Your task to perform on an android device: change the clock style Image 0: 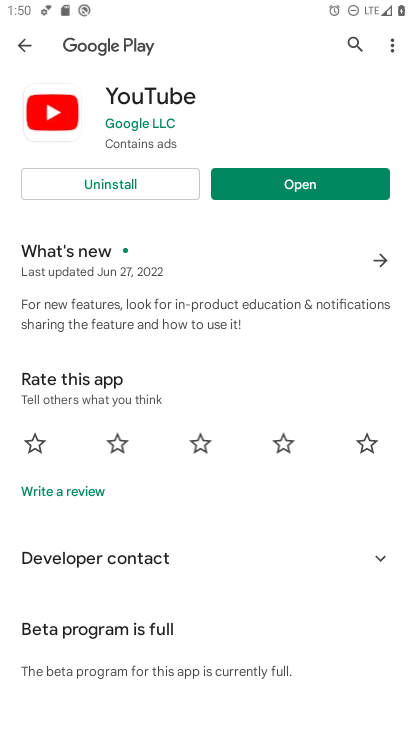
Step 0: press home button
Your task to perform on an android device: change the clock style Image 1: 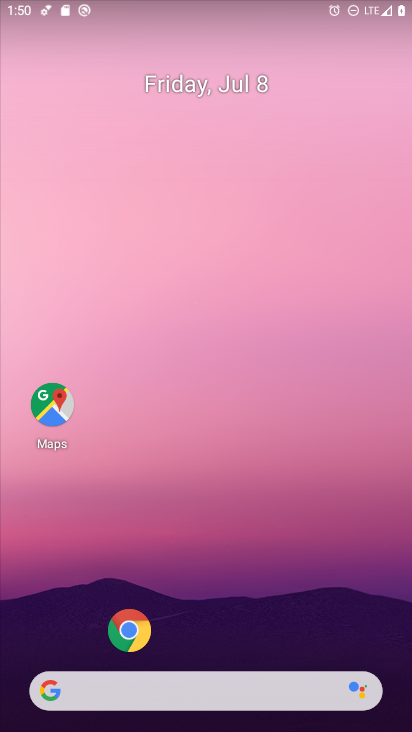
Step 1: drag from (262, 671) to (406, 434)
Your task to perform on an android device: change the clock style Image 2: 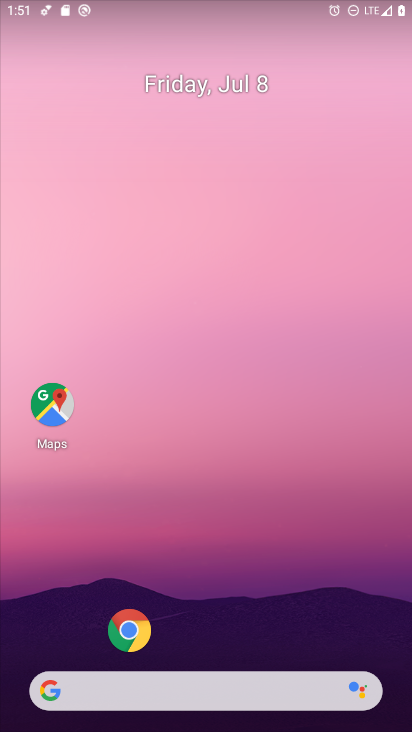
Step 2: drag from (268, 632) to (276, 104)
Your task to perform on an android device: change the clock style Image 3: 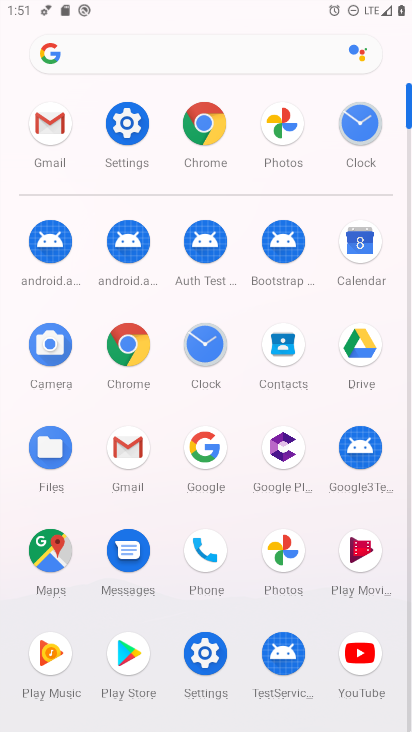
Step 3: click (216, 341)
Your task to perform on an android device: change the clock style Image 4: 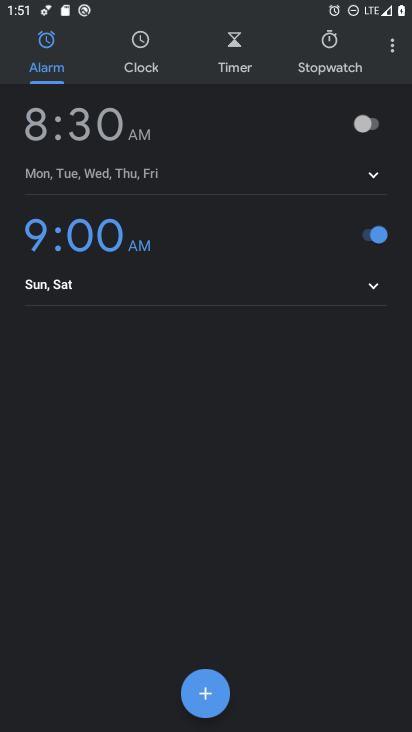
Step 4: click (391, 47)
Your task to perform on an android device: change the clock style Image 5: 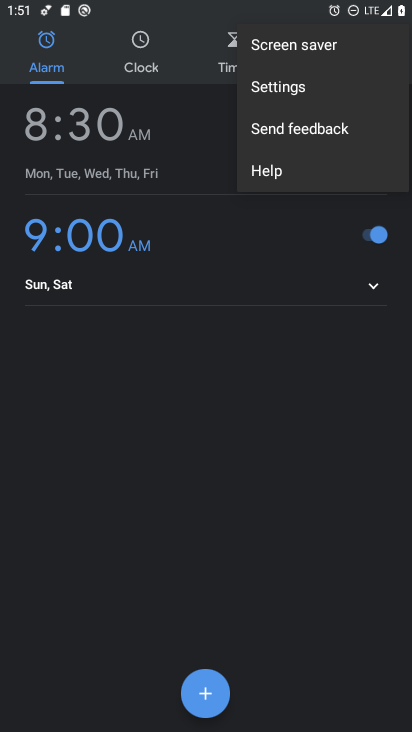
Step 5: click (301, 87)
Your task to perform on an android device: change the clock style Image 6: 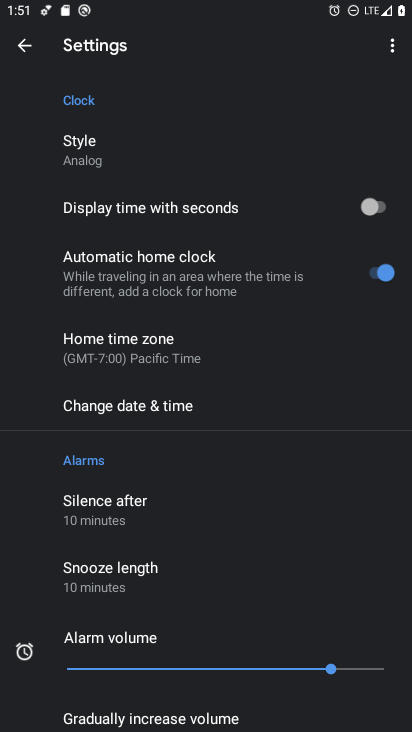
Step 6: click (122, 152)
Your task to perform on an android device: change the clock style Image 7: 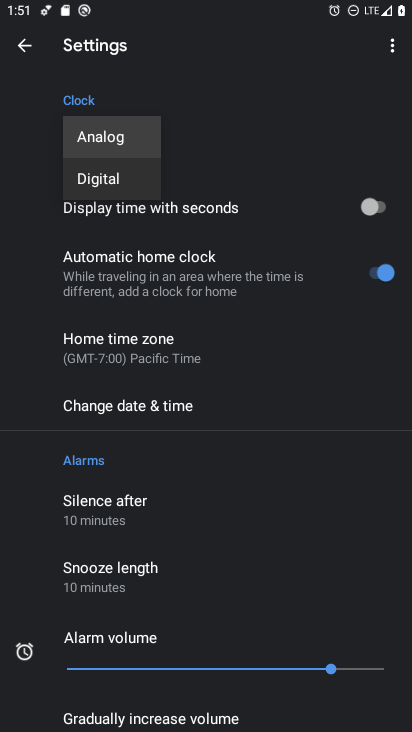
Step 7: click (125, 176)
Your task to perform on an android device: change the clock style Image 8: 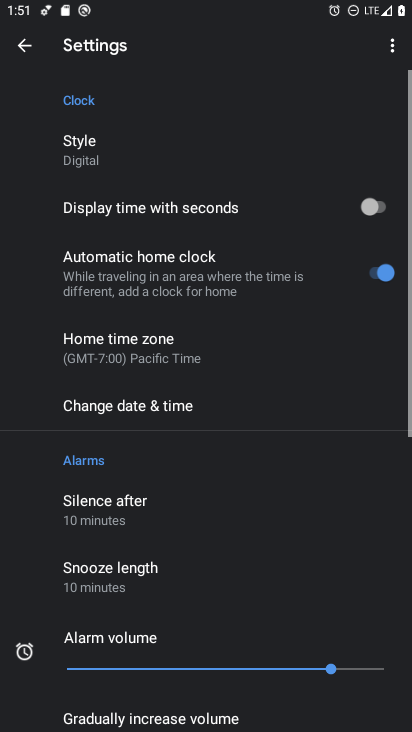
Step 8: task complete